Your task to perform on an android device: see sites visited before in the chrome app Image 0: 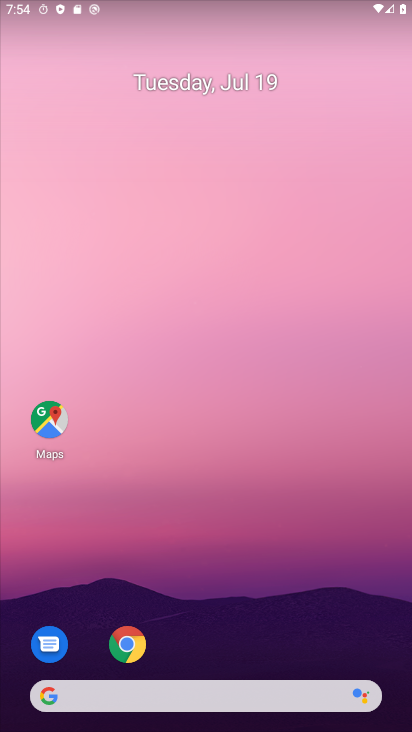
Step 0: click (109, 641)
Your task to perform on an android device: see sites visited before in the chrome app Image 1: 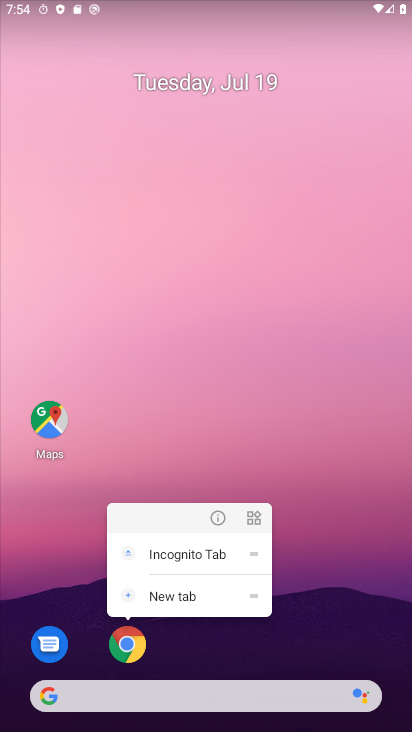
Step 1: click (130, 635)
Your task to perform on an android device: see sites visited before in the chrome app Image 2: 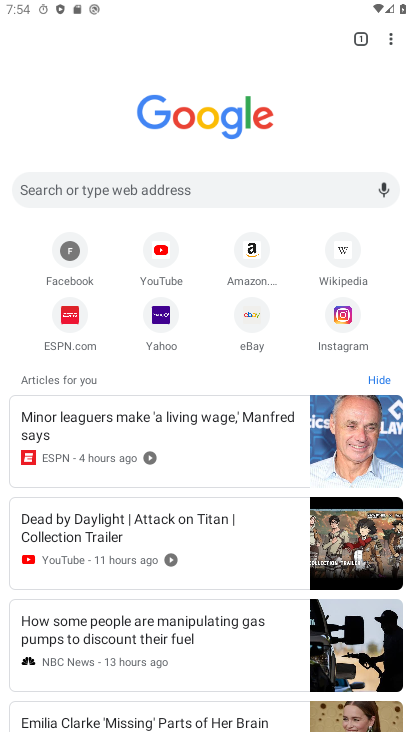
Step 2: click (388, 42)
Your task to perform on an android device: see sites visited before in the chrome app Image 3: 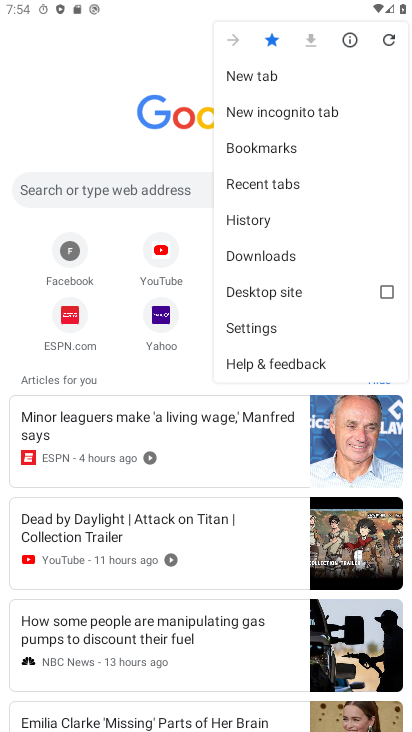
Step 3: click (232, 327)
Your task to perform on an android device: see sites visited before in the chrome app Image 4: 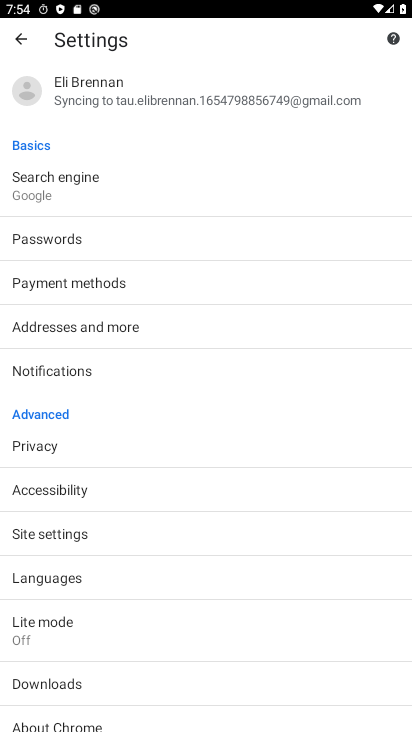
Step 4: click (82, 535)
Your task to perform on an android device: see sites visited before in the chrome app Image 5: 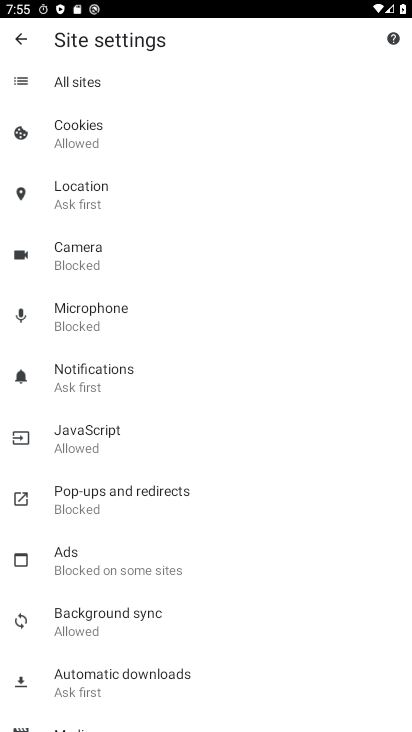
Step 5: task complete